Your task to perform on an android device: change keyboard looks Image 0: 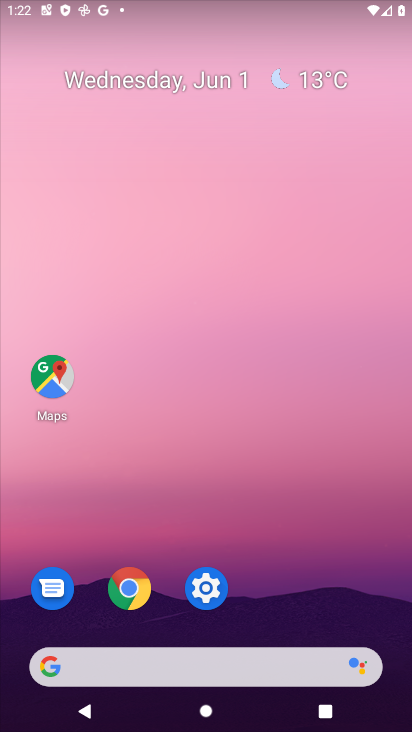
Step 0: drag from (248, 678) to (190, 11)
Your task to perform on an android device: change keyboard looks Image 1: 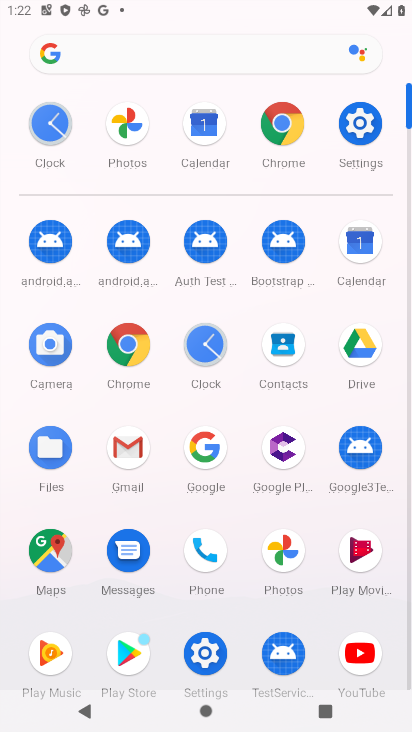
Step 1: click (354, 112)
Your task to perform on an android device: change keyboard looks Image 2: 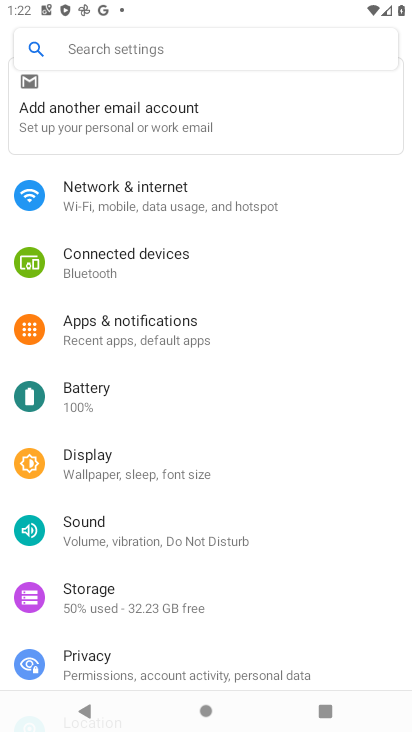
Step 2: click (138, 52)
Your task to perform on an android device: change keyboard looks Image 3: 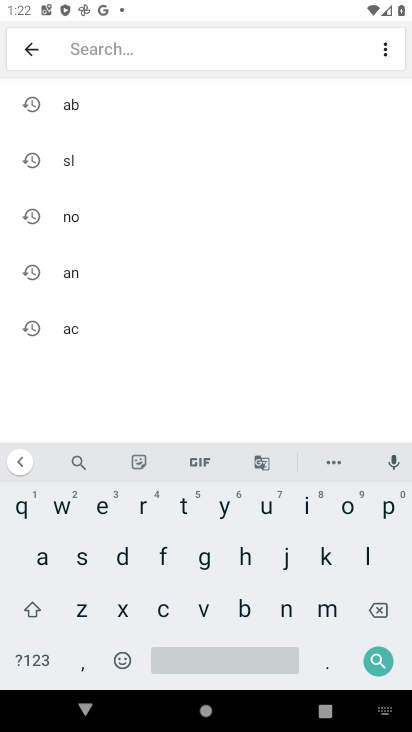
Step 3: click (318, 554)
Your task to perform on an android device: change keyboard looks Image 4: 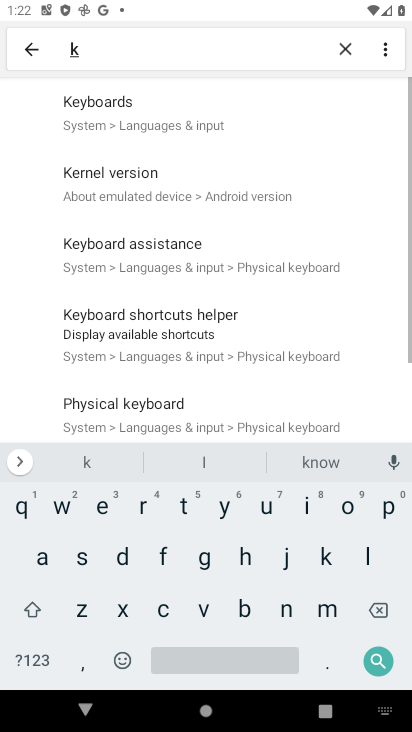
Step 4: click (95, 502)
Your task to perform on an android device: change keyboard looks Image 5: 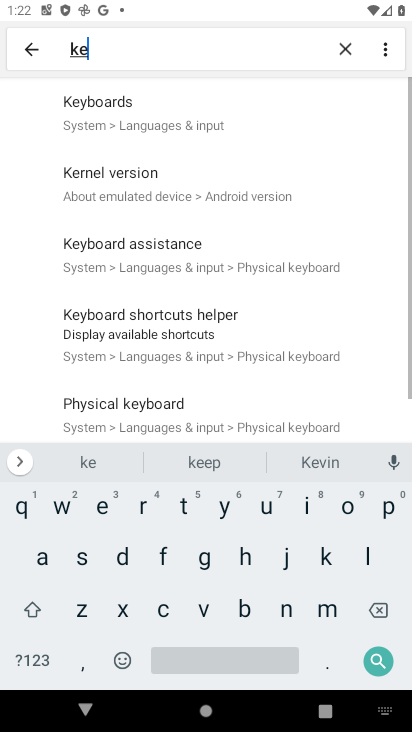
Step 5: click (217, 508)
Your task to perform on an android device: change keyboard looks Image 6: 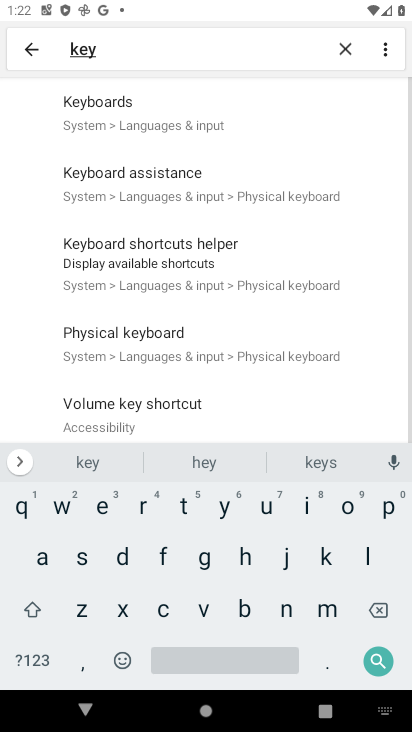
Step 6: click (114, 116)
Your task to perform on an android device: change keyboard looks Image 7: 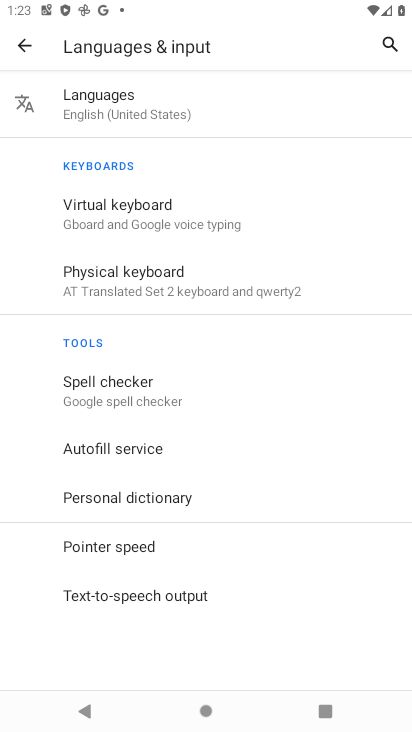
Step 7: click (121, 207)
Your task to perform on an android device: change keyboard looks Image 8: 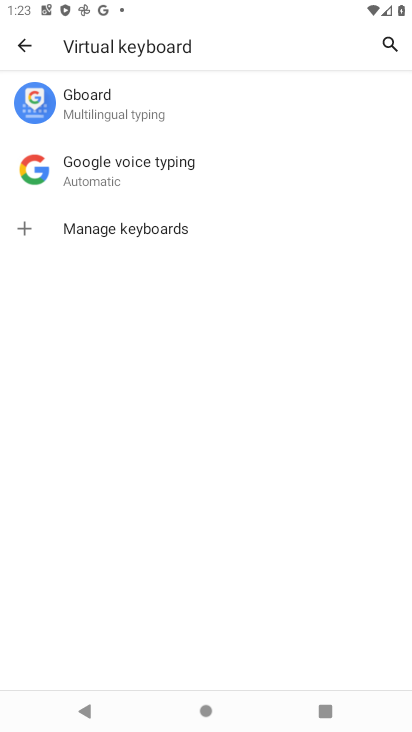
Step 8: click (103, 98)
Your task to perform on an android device: change keyboard looks Image 9: 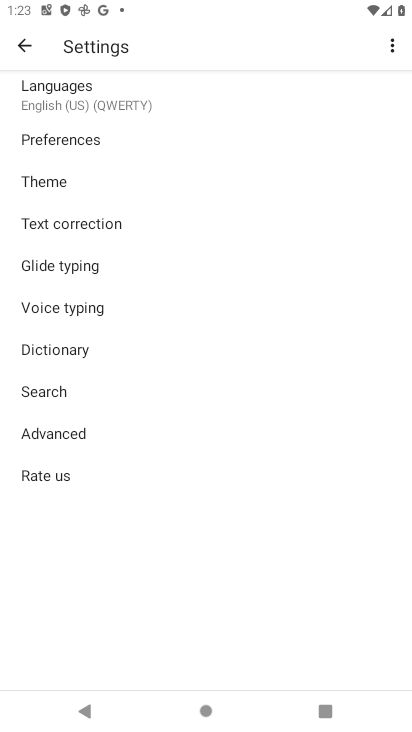
Step 9: click (65, 154)
Your task to perform on an android device: change keyboard looks Image 10: 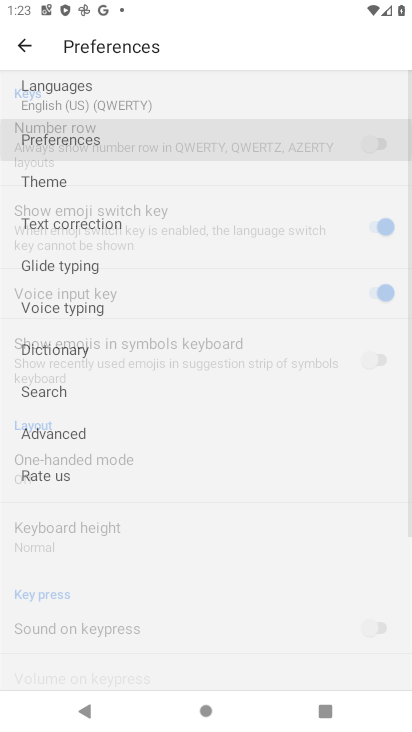
Step 10: click (57, 165)
Your task to perform on an android device: change keyboard looks Image 11: 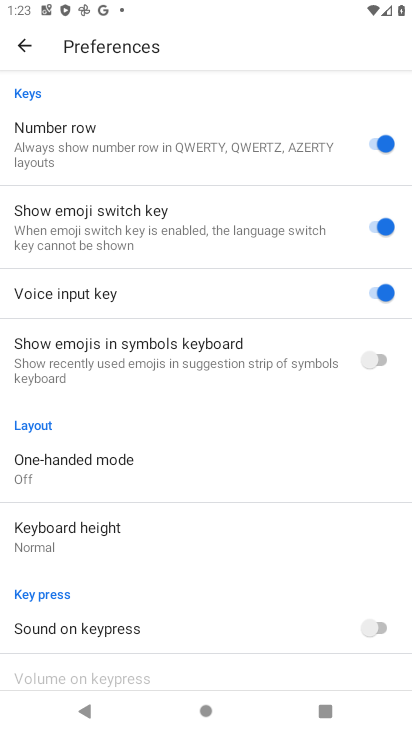
Step 11: task complete